Your task to perform on an android device: change the clock display to analog Image 0: 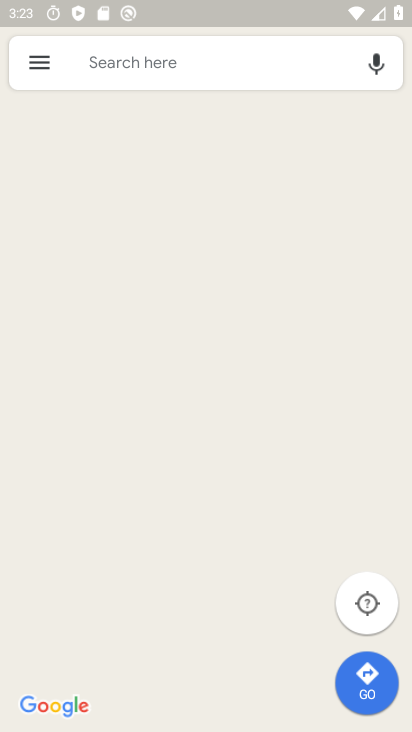
Step 0: press back button
Your task to perform on an android device: change the clock display to analog Image 1: 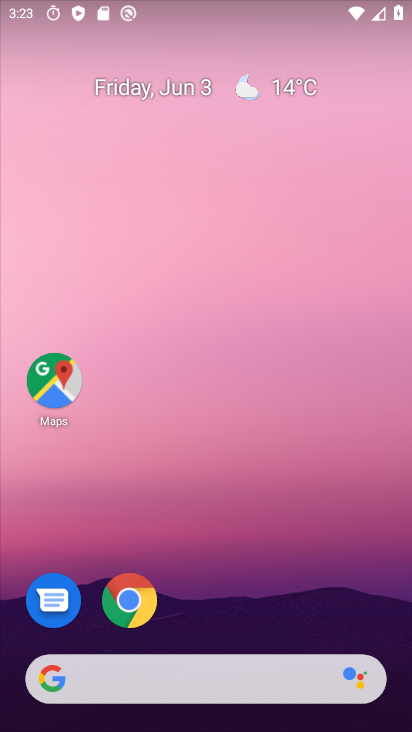
Step 1: drag from (228, 584) to (202, 12)
Your task to perform on an android device: change the clock display to analog Image 2: 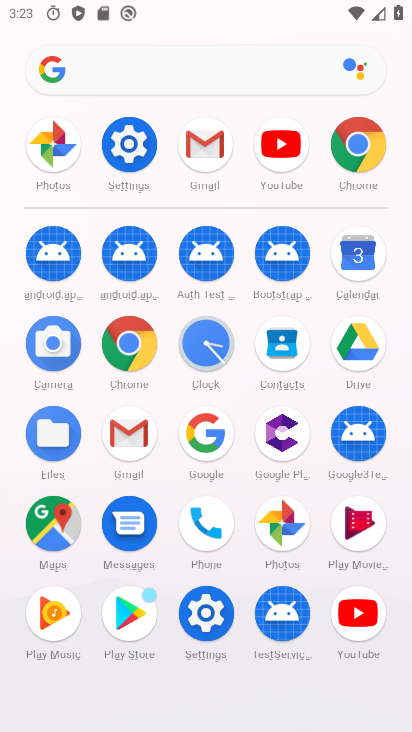
Step 2: click (205, 615)
Your task to perform on an android device: change the clock display to analog Image 3: 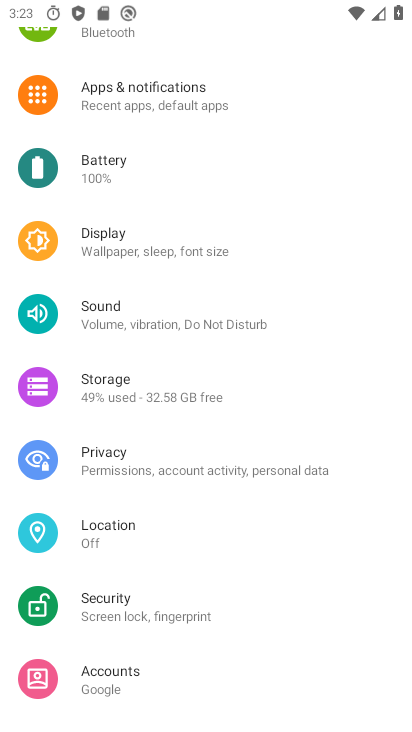
Step 3: drag from (238, 140) to (211, 565)
Your task to perform on an android device: change the clock display to analog Image 4: 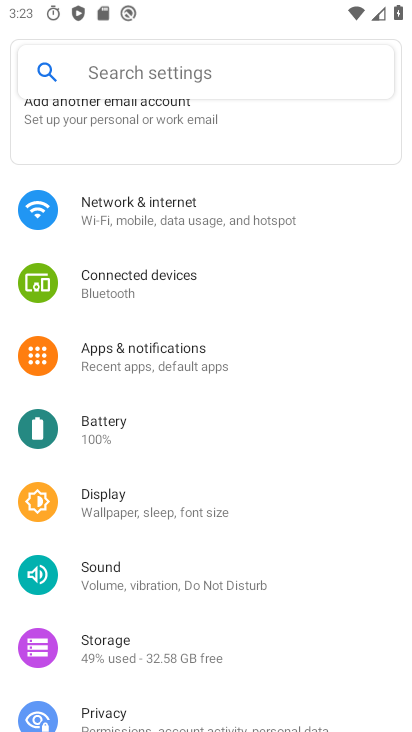
Step 4: drag from (275, 215) to (247, 543)
Your task to perform on an android device: change the clock display to analog Image 5: 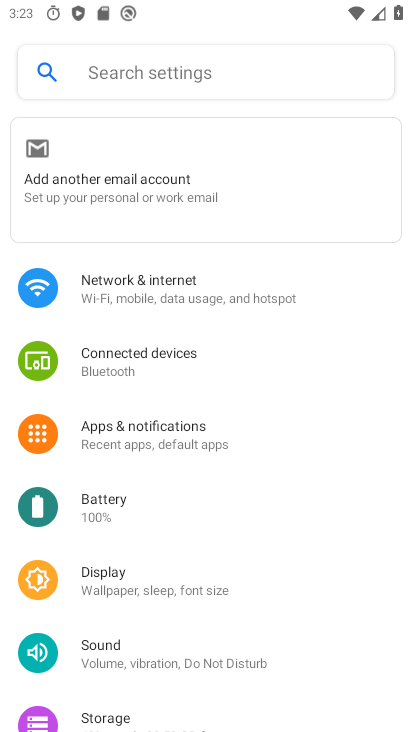
Step 5: press back button
Your task to perform on an android device: change the clock display to analog Image 6: 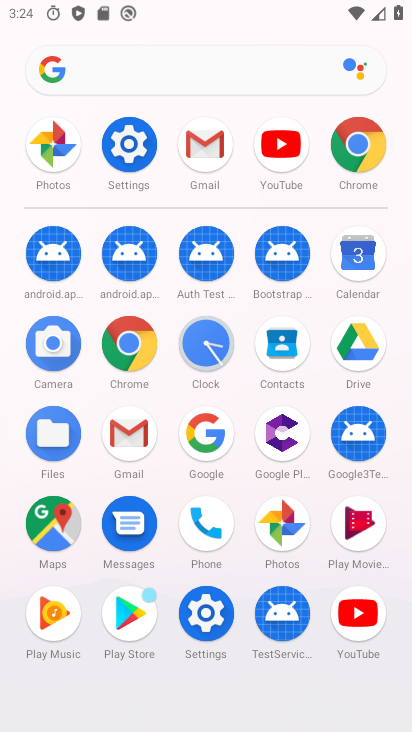
Step 6: click (204, 336)
Your task to perform on an android device: change the clock display to analog Image 7: 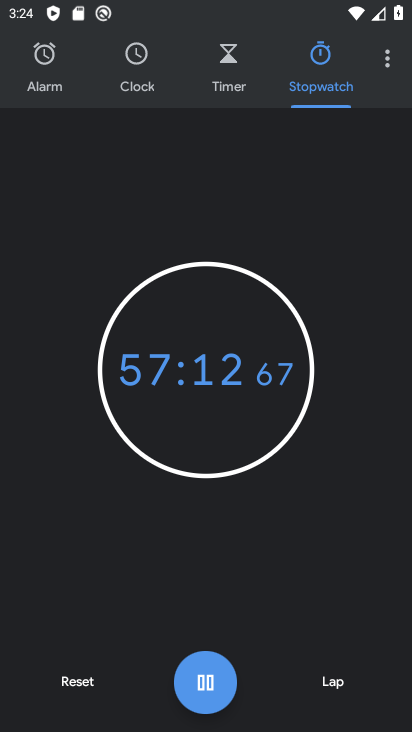
Step 7: drag from (388, 51) to (290, 116)
Your task to perform on an android device: change the clock display to analog Image 8: 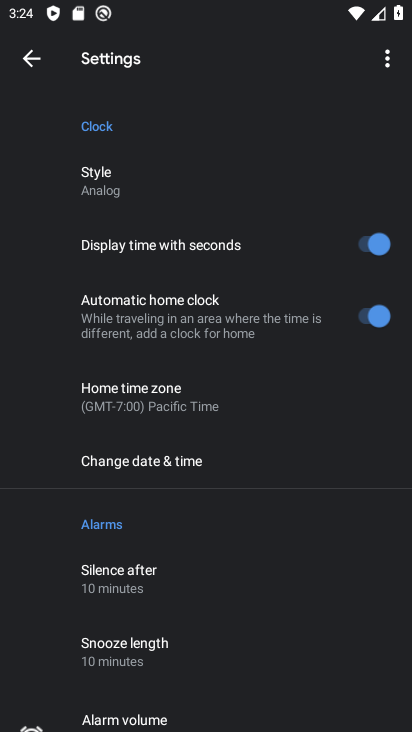
Step 8: click (128, 174)
Your task to perform on an android device: change the clock display to analog Image 9: 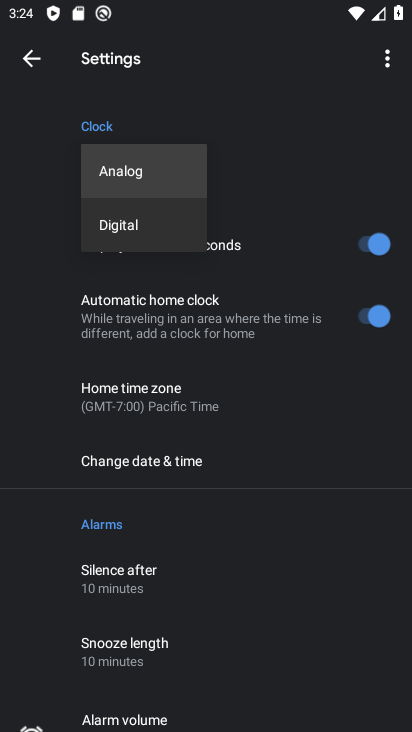
Step 9: click (151, 186)
Your task to perform on an android device: change the clock display to analog Image 10: 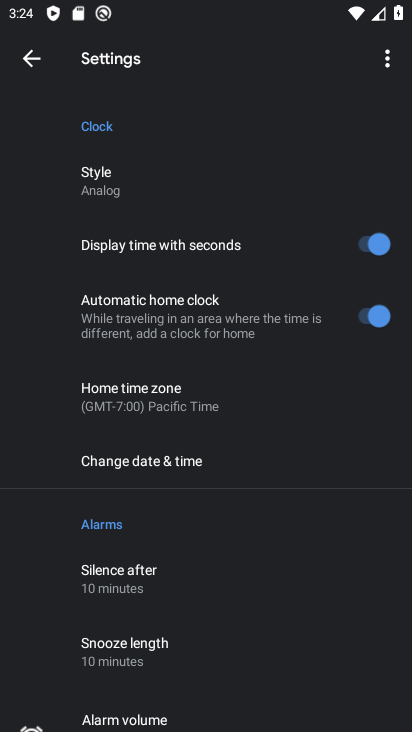
Step 10: task complete